Your task to perform on an android device: create a new album in the google photos Image 0: 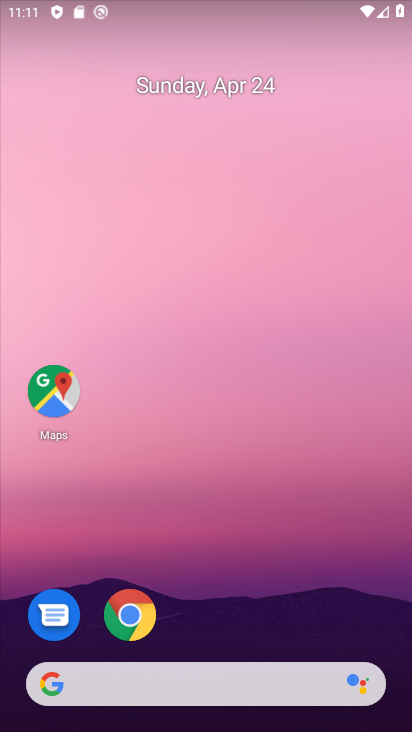
Step 0: drag from (216, 586) to (263, 5)
Your task to perform on an android device: create a new album in the google photos Image 1: 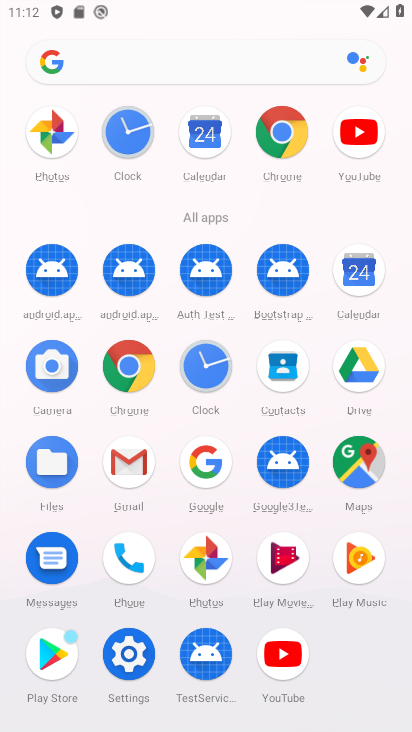
Step 1: click (204, 552)
Your task to perform on an android device: create a new album in the google photos Image 2: 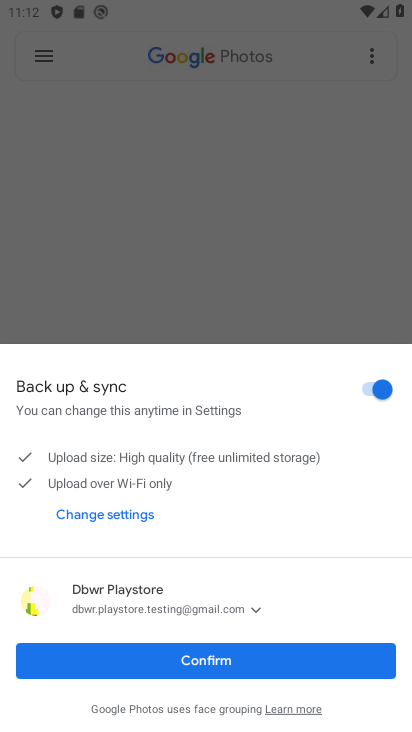
Step 2: click (218, 656)
Your task to perform on an android device: create a new album in the google photos Image 3: 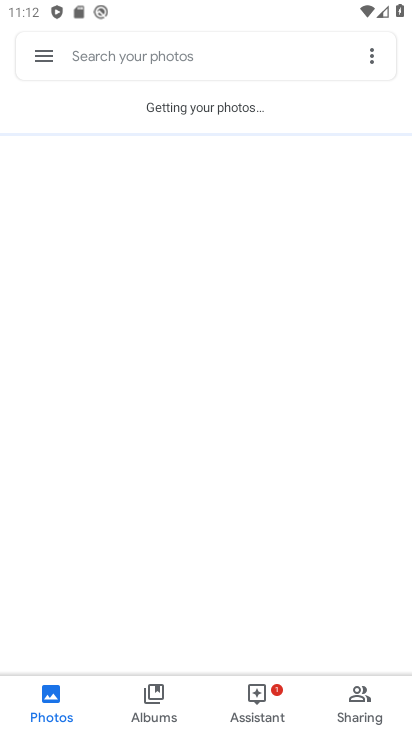
Step 3: click (155, 693)
Your task to perform on an android device: create a new album in the google photos Image 4: 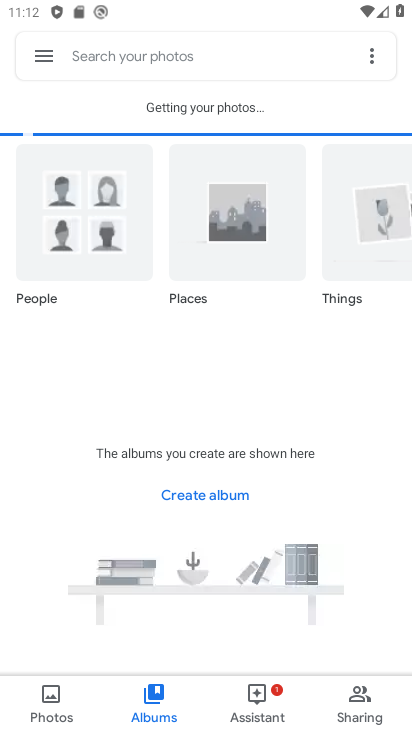
Step 4: click (364, 47)
Your task to perform on an android device: create a new album in the google photos Image 5: 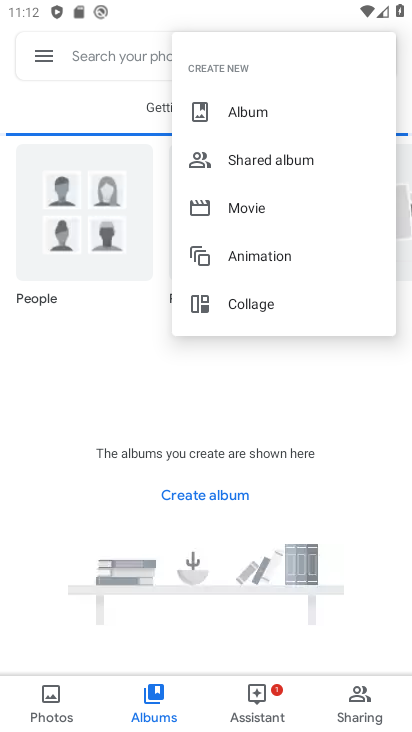
Step 5: click (247, 106)
Your task to perform on an android device: create a new album in the google photos Image 6: 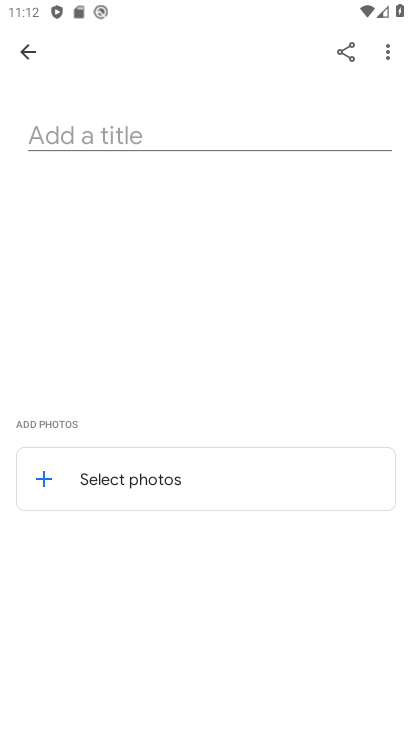
Step 6: click (43, 473)
Your task to perform on an android device: create a new album in the google photos Image 7: 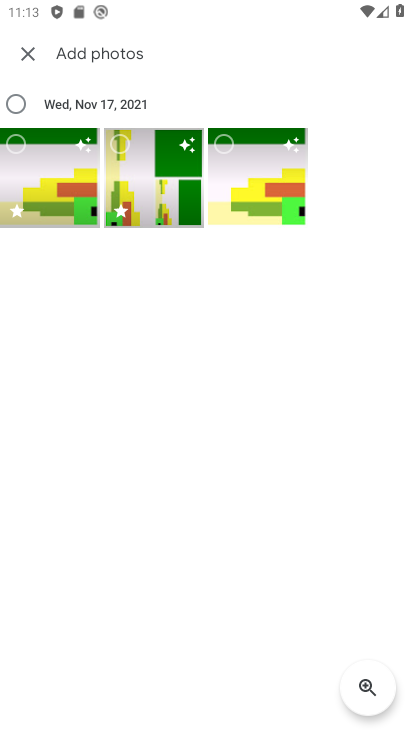
Step 7: click (14, 103)
Your task to perform on an android device: create a new album in the google photos Image 8: 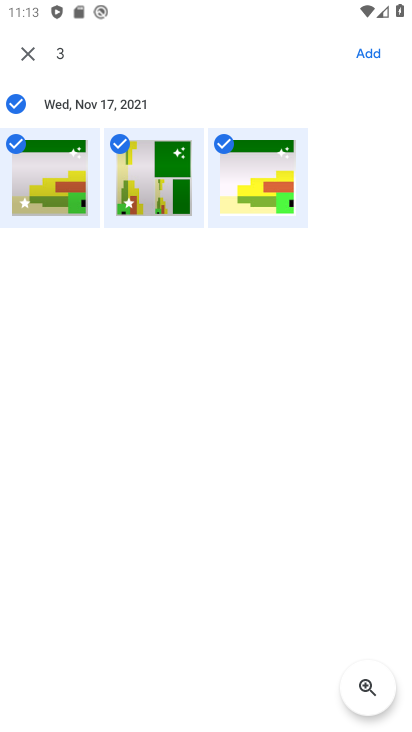
Step 8: click (356, 45)
Your task to perform on an android device: create a new album in the google photos Image 9: 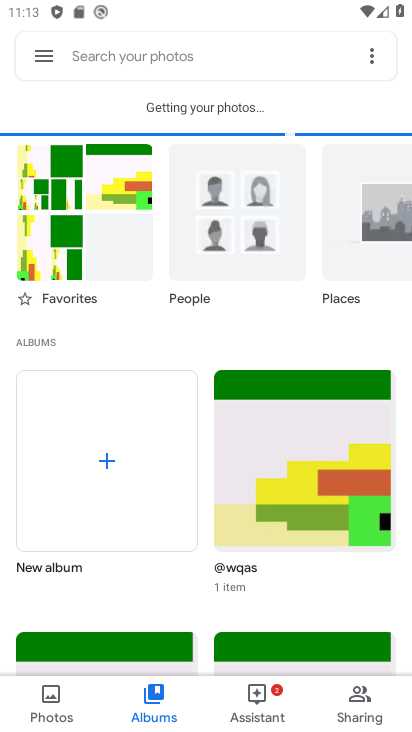
Step 9: click (371, 52)
Your task to perform on an android device: create a new album in the google photos Image 10: 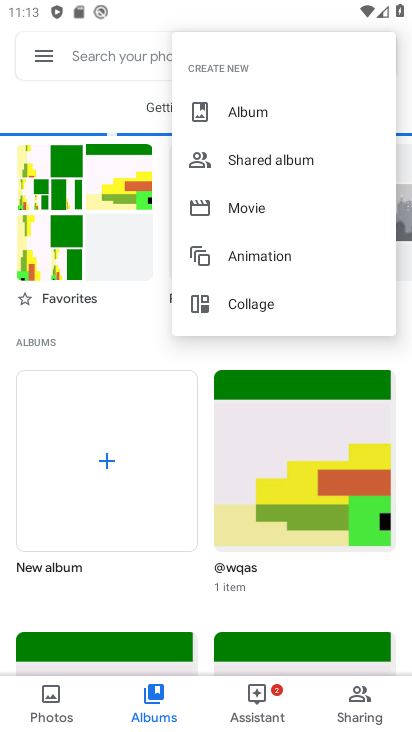
Step 10: click (264, 110)
Your task to perform on an android device: create a new album in the google photos Image 11: 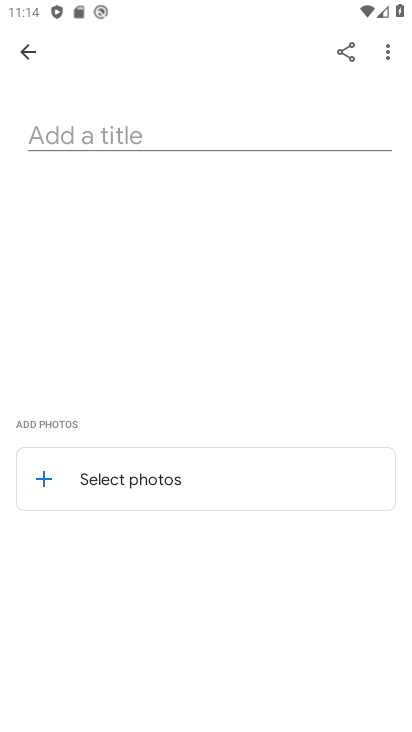
Step 11: click (44, 478)
Your task to perform on an android device: create a new album in the google photos Image 12: 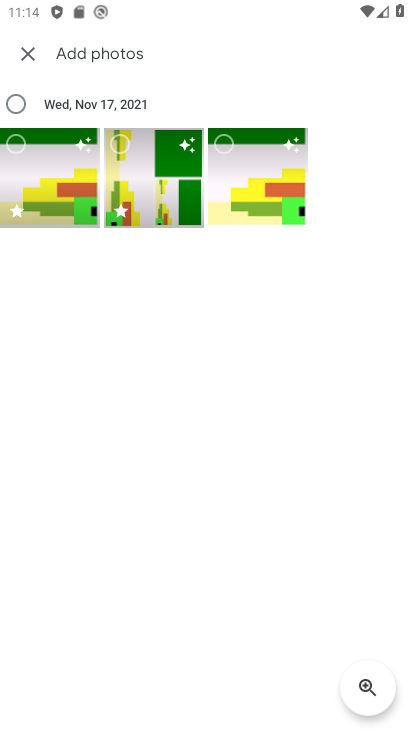
Step 12: click (13, 104)
Your task to perform on an android device: create a new album in the google photos Image 13: 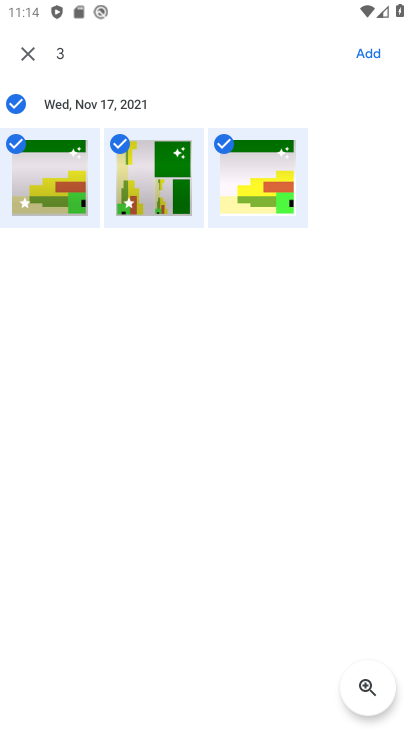
Step 13: click (372, 53)
Your task to perform on an android device: create a new album in the google photos Image 14: 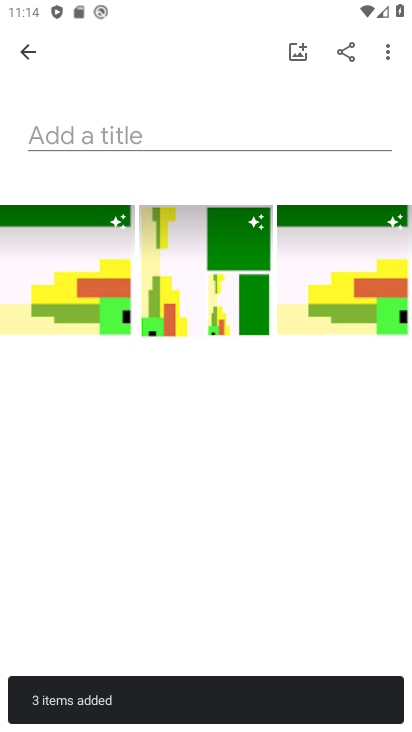
Step 14: click (103, 120)
Your task to perform on an android device: create a new album in the google photos Image 15: 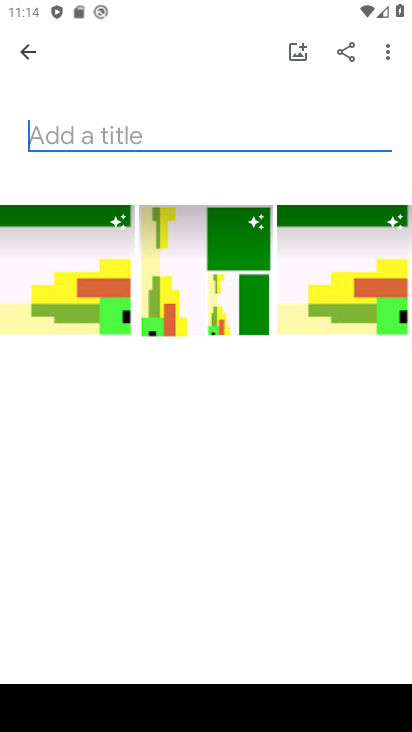
Step 15: type "jhfhf"
Your task to perform on an android device: create a new album in the google photos Image 16: 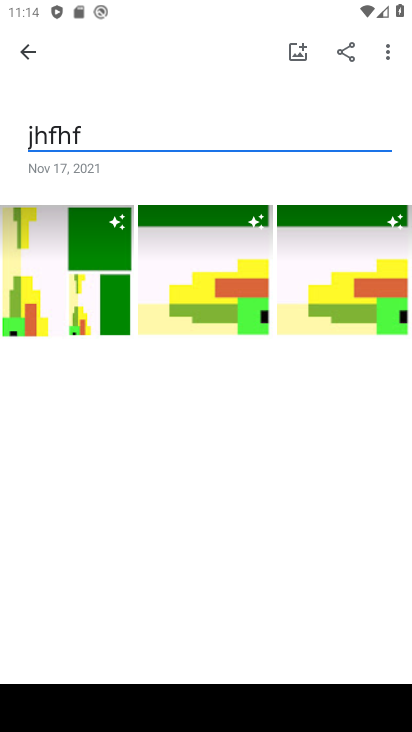
Step 16: task complete